Your task to perform on an android device: toggle sleep mode Image 0: 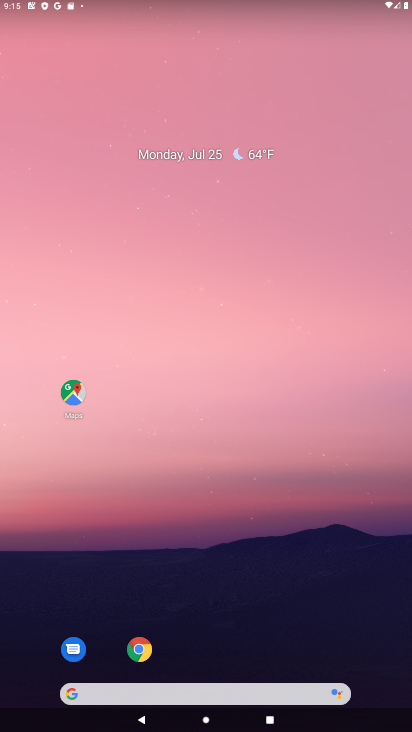
Step 0: drag from (244, 6) to (220, 698)
Your task to perform on an android device: toggle sleep mode Image 1: 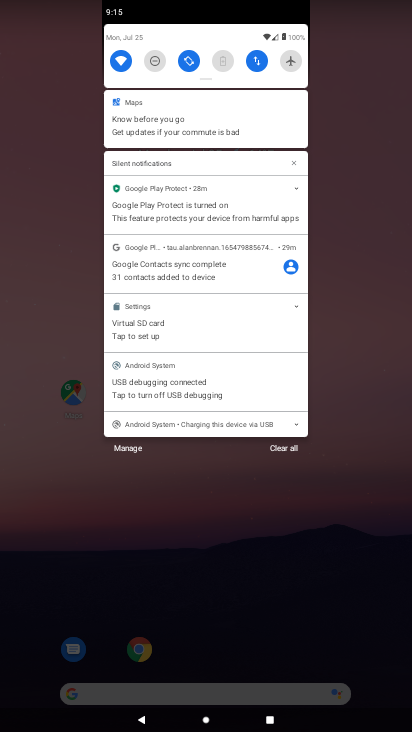
Step 1: drag from (207, 75) to (196, 520)
Your task to perform on an android device: toggle sleep mode Image 2: 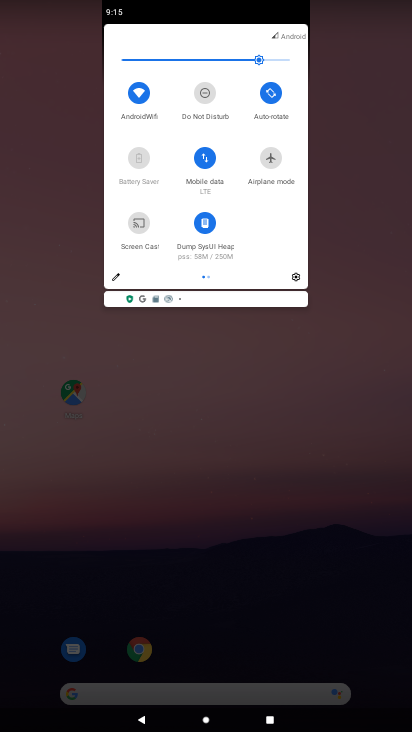
Step 2: click (114, 273)
Your task to perform on an android device: toggle sleep mode Image 3: 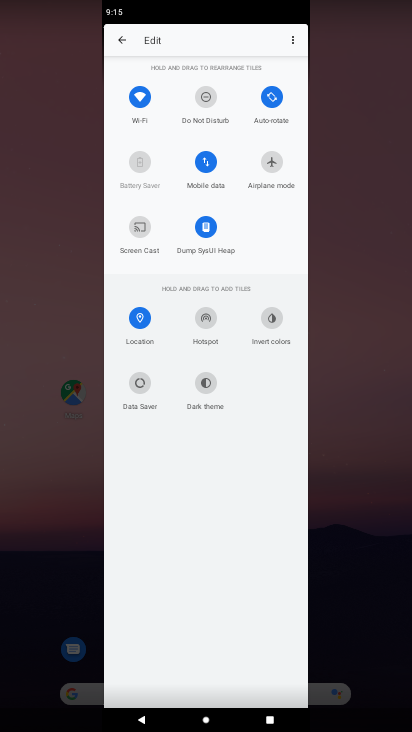
Step 3: task complete